Your task to perform on an android device: What's the weather today? Image 0: 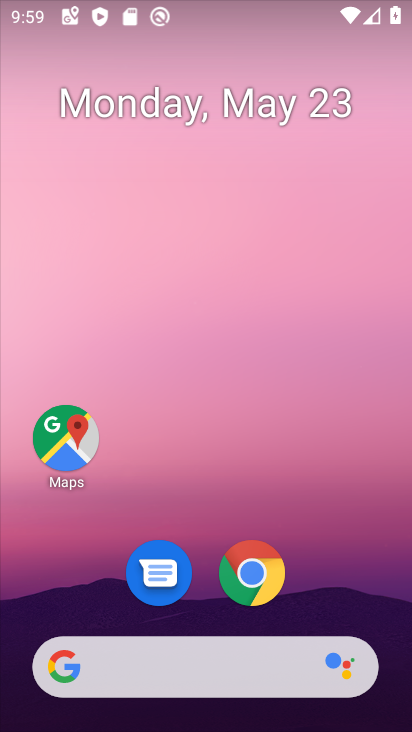
Step 0: click (238, 665)
Your task to perform on an android device: What's the weather today? Image 1: 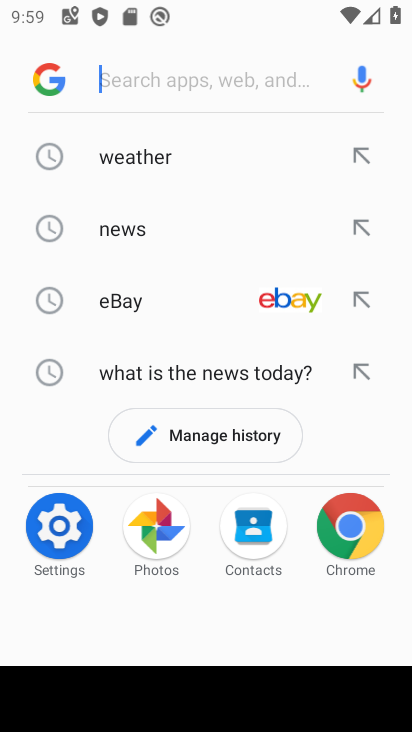
Step 1: click (170, 159)
Your task to perform on an android device: What's the weather today? Image 2: 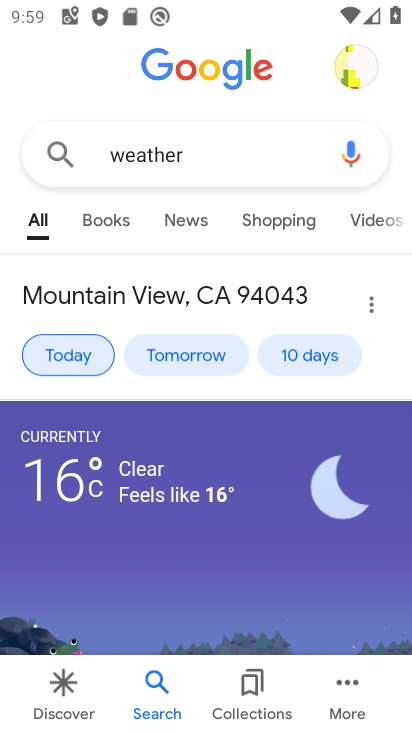
Step 2: task complete